Your task to perform on an android device: turn on data saver in the chrome app Image 0: 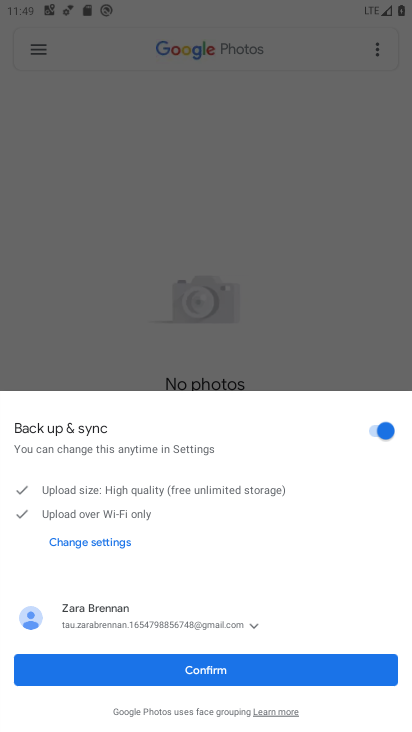
Step 0: press home button
Your task to perform on an android device: turn on data saver in the chrome app Image 1: 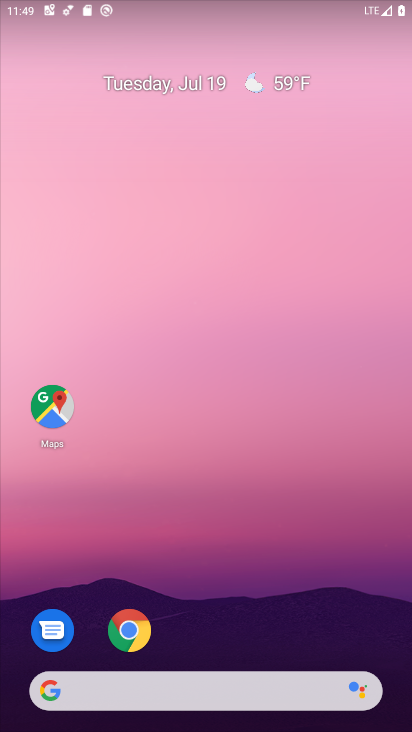
Step 1: click (129, 630)
Your task to perform on an android device: turn on data saver in the chrome app Image 2: 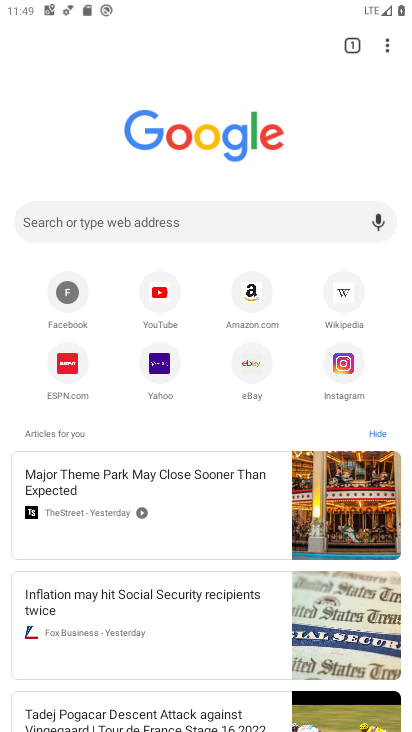
Step 2: click (387, 51)
Your task to perform on an android device: turn on data saver in the chrome app Image 3: 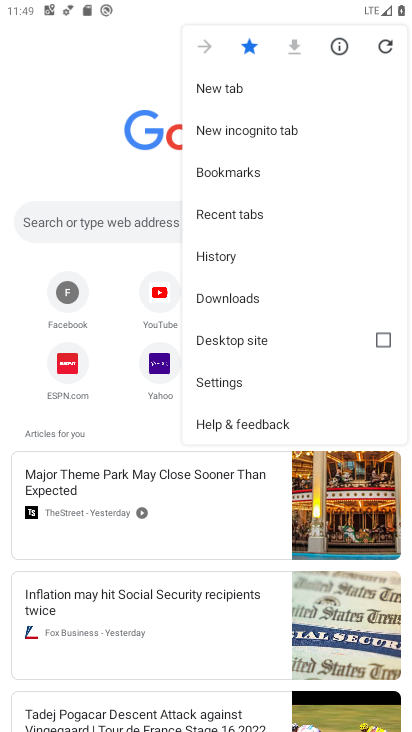
Step 3: click (219, 384)
Your task to perform on an android device: turn on data saver in the chrome app Image 4: 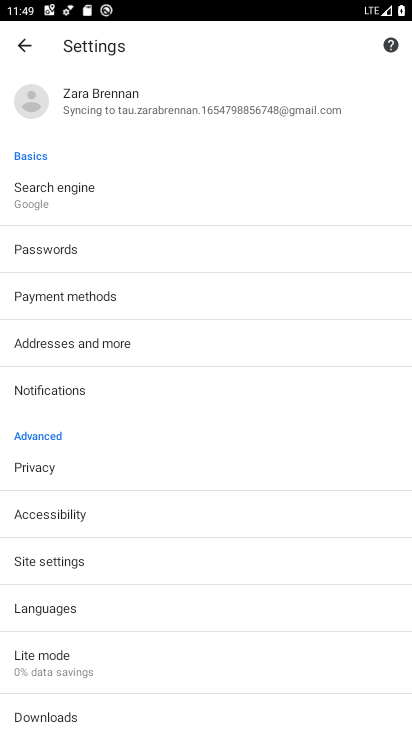
Step 4: click (47, 660)
Your task to perform on an android device: turn on data saver in the chrome app Image 5: 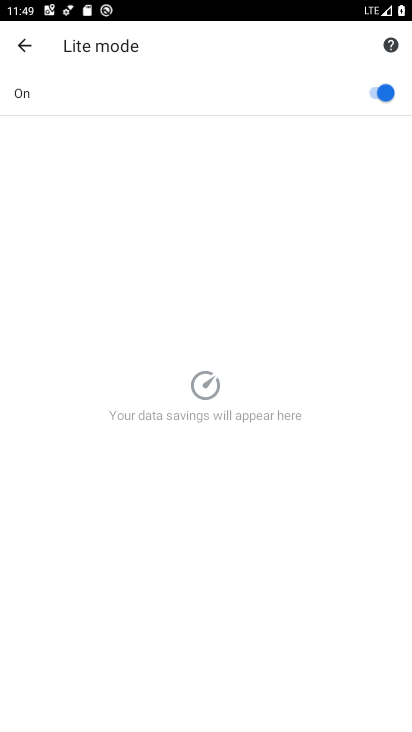
Step 5: task complete